Your task to perform on an android device: Search for hotels in Sydney Image 0: 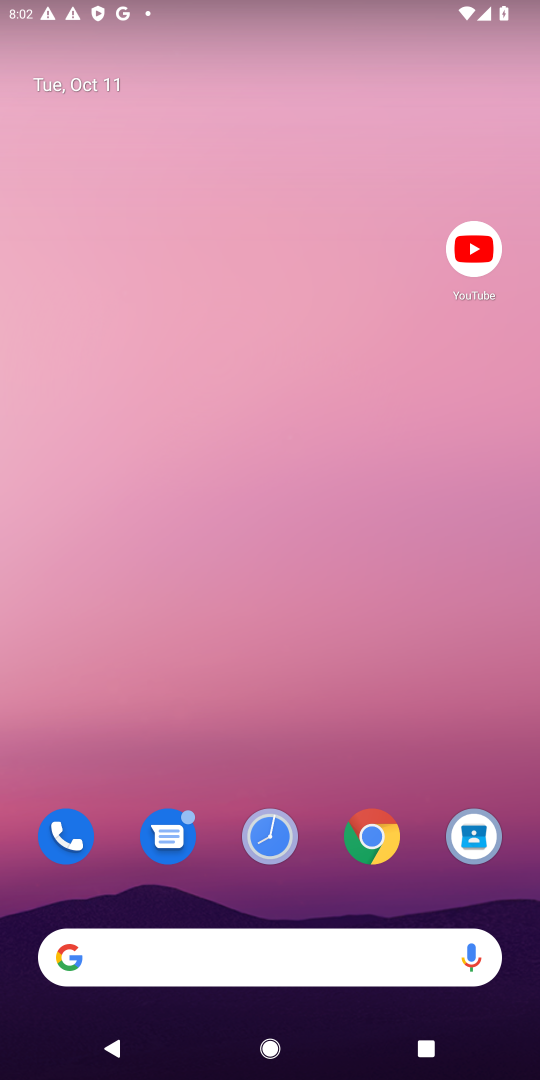
Step 0: click (372, 825)
Your task to perform on an android device: Search for hotels in Sydney Image 1: 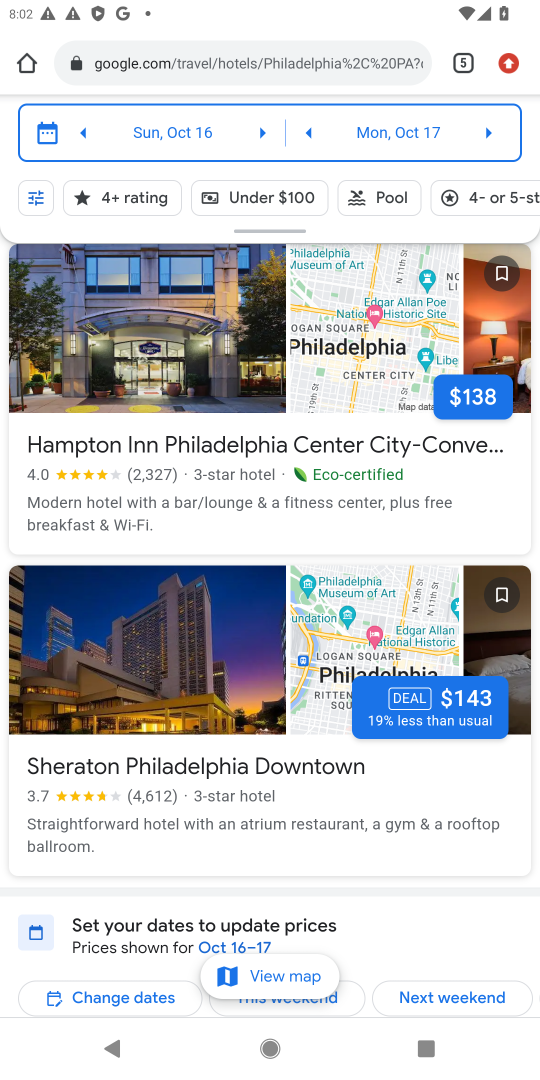
Step 1: click (322, 61)
Your task to perform on an android device: Search for hotels in Sydney Image 2: 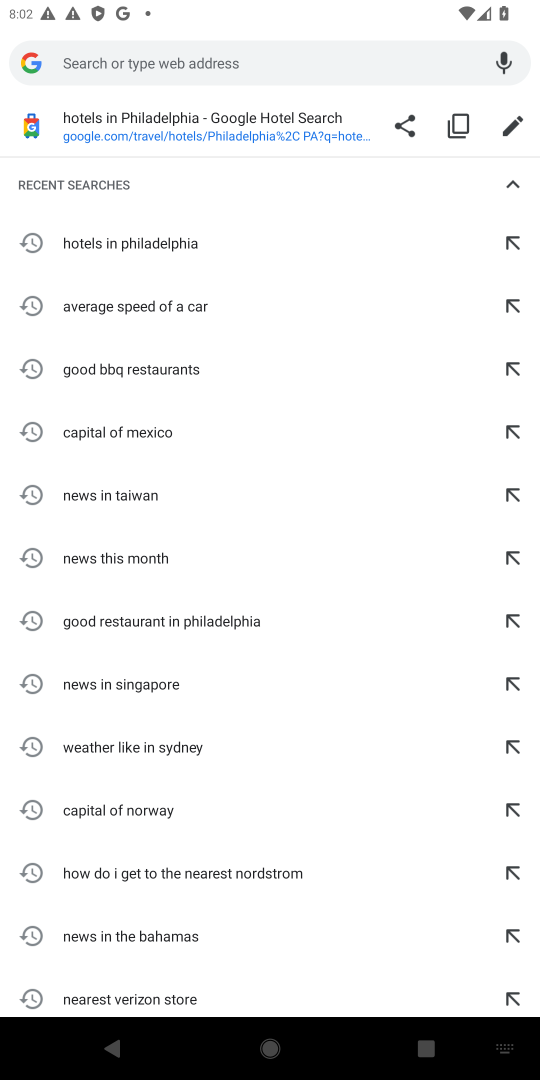
Step 2: type "hotels in Sydney"
Your task to perform on an android device: Search for hotels in Sydney Image 3: 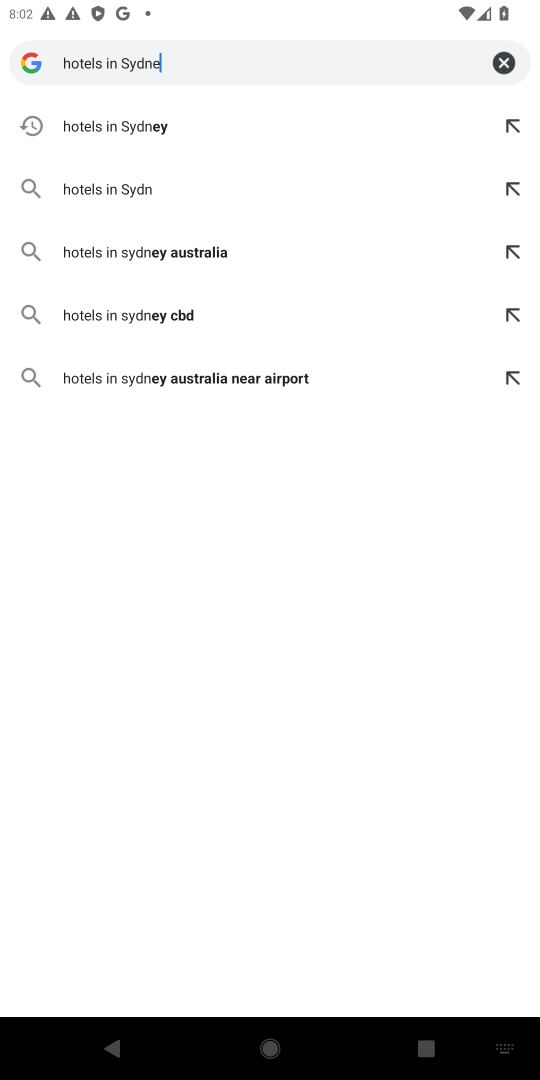
Step 3: press enter
Your task to perform on an android device: Search for hotels in Sydney Image 4: 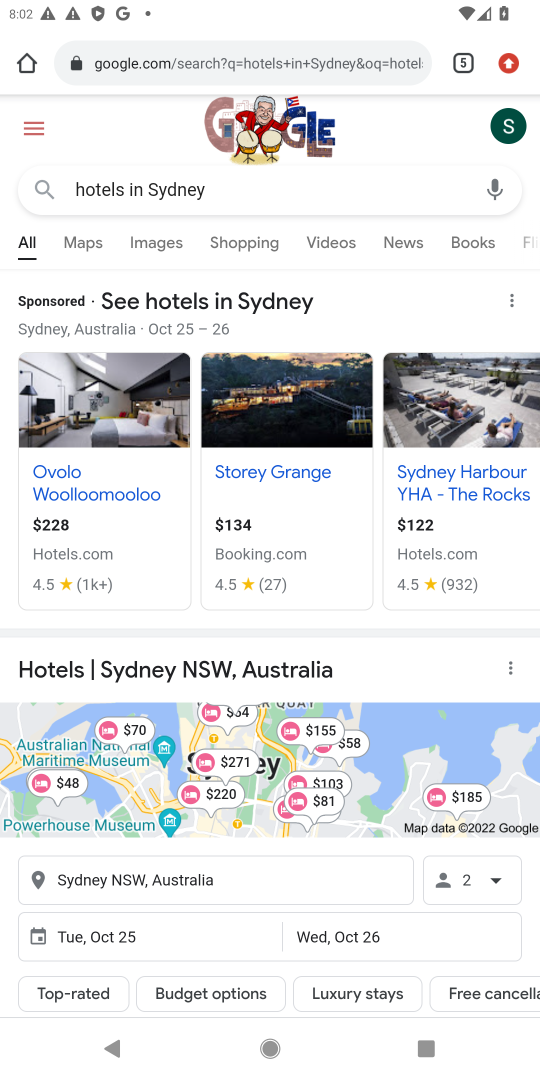
Step 4: drag from (286, 827) to (482, 183)
Your task to perform on an android device: Search for hotels in Sydney Image 5: 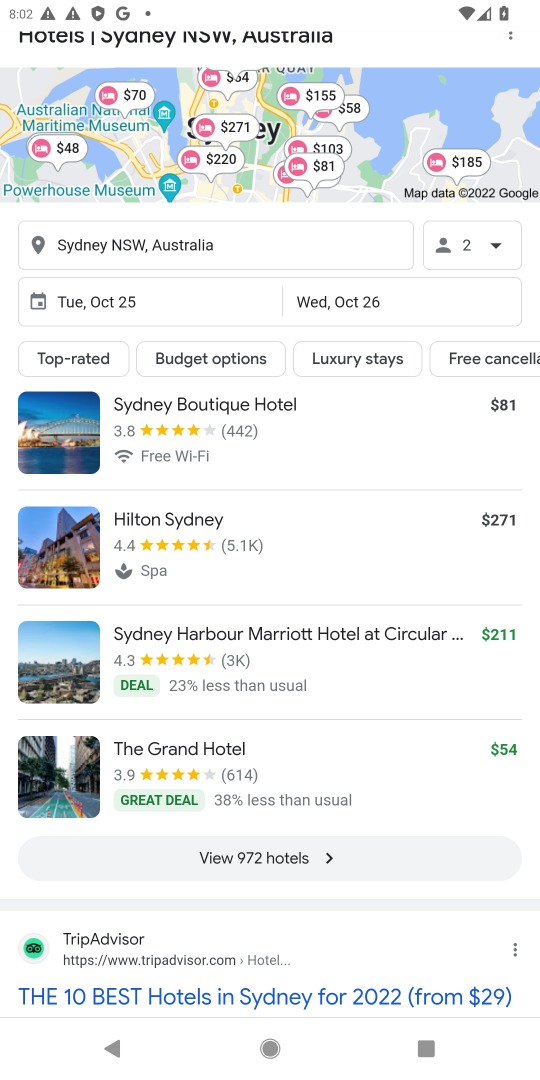
Step 5: click (327, 850)
Your task to perform on an android device: Search for hotels in Sydney Image 6: 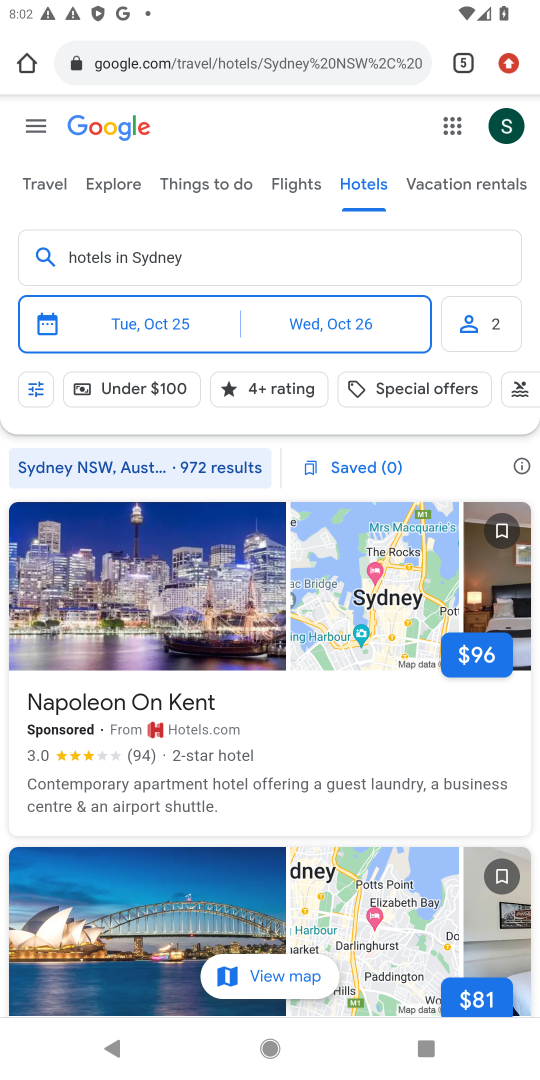
Step 6: task complete